Your task to perform on an android device: open the mobile data screen to see how much data has been used Image 0: 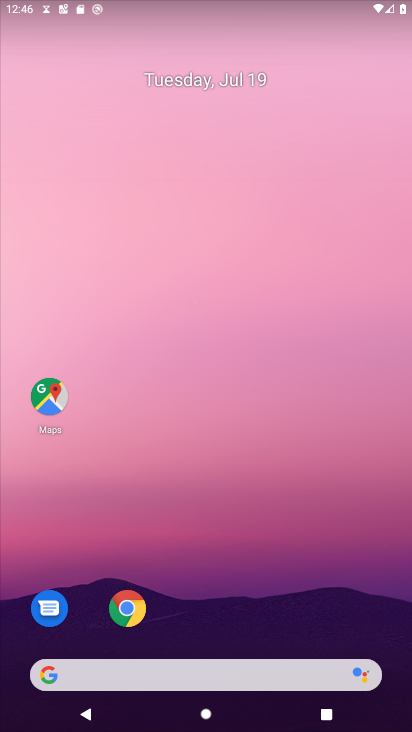
Step 0: drag from (282, 549) to (284, 62)
Your task to perform on an android device: open the mobile data screen to see how much data has been used Image 1: 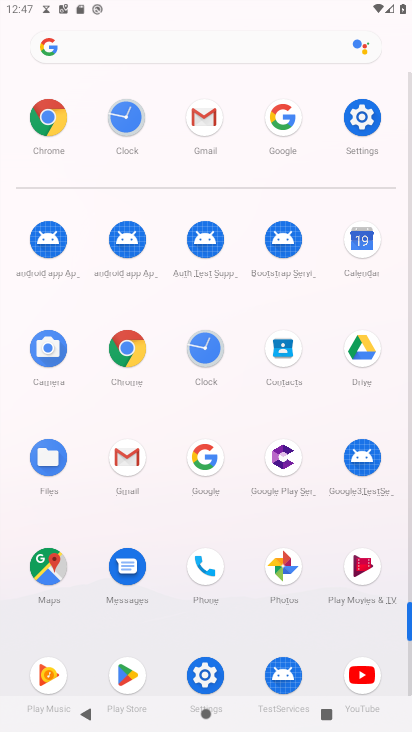
Step 1: click (222, 682)
Your task to perform on an android device: open the mobile data screen to see how much data has been used Image 2: 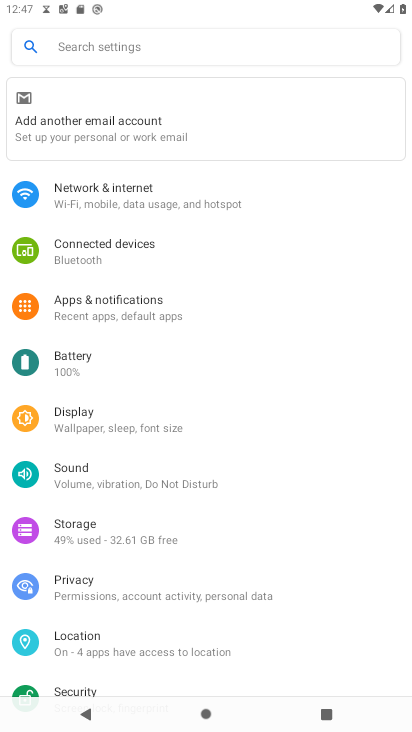
Step 2: drag from (138, 230) to (157, 462)
Your task to perform on an android device: open the mobile data screen to see how much data has been used Image 3: 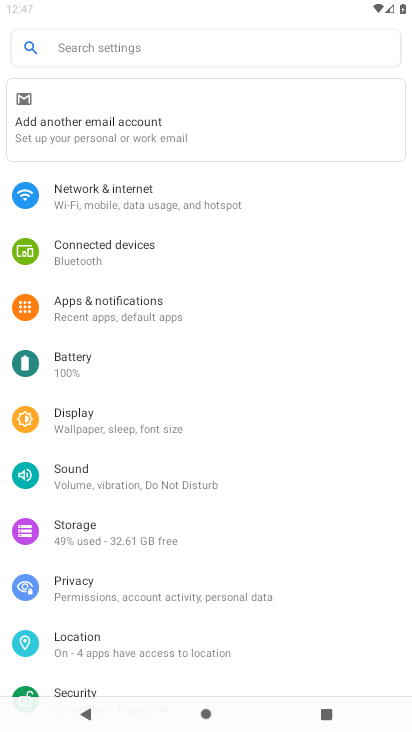
Step 3: click (145, 193)
Your task to perform on an android device: open the mobile data screen to see how much data has been used Image 4: 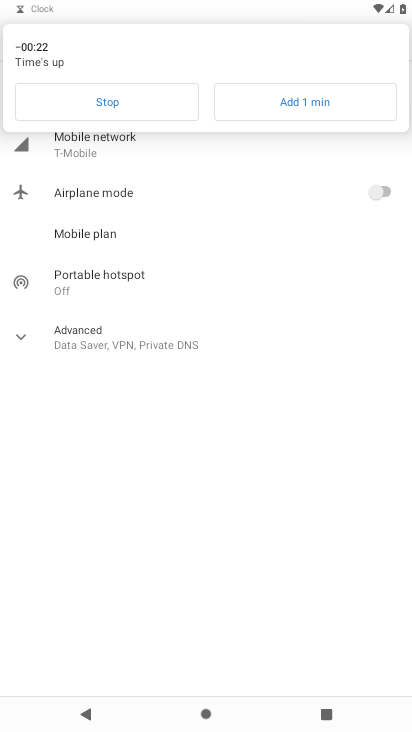
Step 4: click (132, 100)
Your task to perform on an android device: open the mobile data screen to see how much data has been used Image 5: 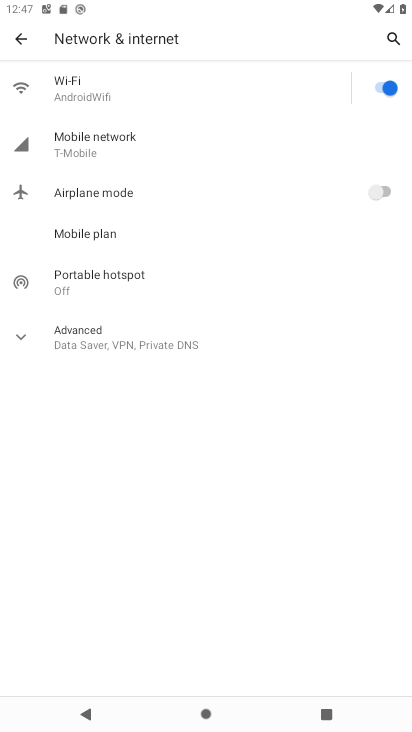
Step 5: click (135, 140)
Your task to perform on an android device: open the mobile data screen to see how much data has been used Image 6: 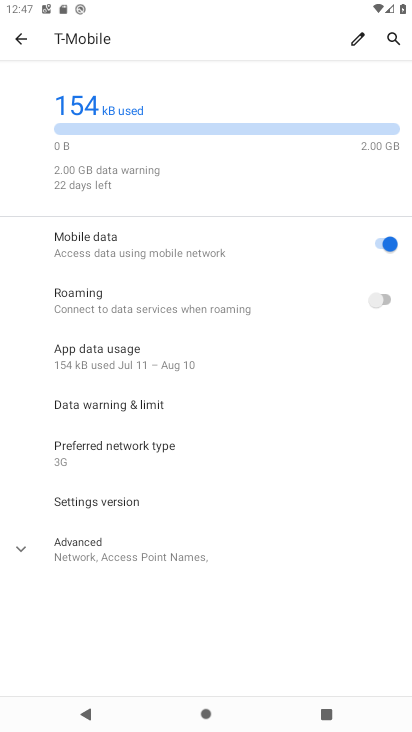
Step 6: click (156, 351)
Your task to perform on an android device: open the mobile data screen to see how much data has been used Image 7: 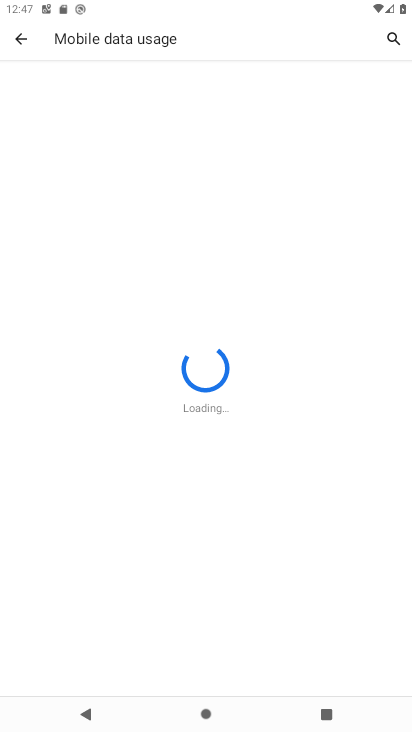
Step 7: task complete